Your task to perform on an android device: create a new album in the google photos Image 0: 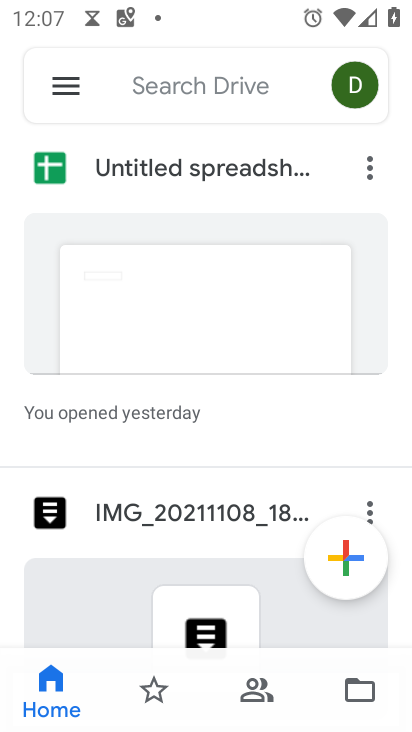
Step 0: press home button
Your task to perform on an android device: create a new album in the google photos Image 1: 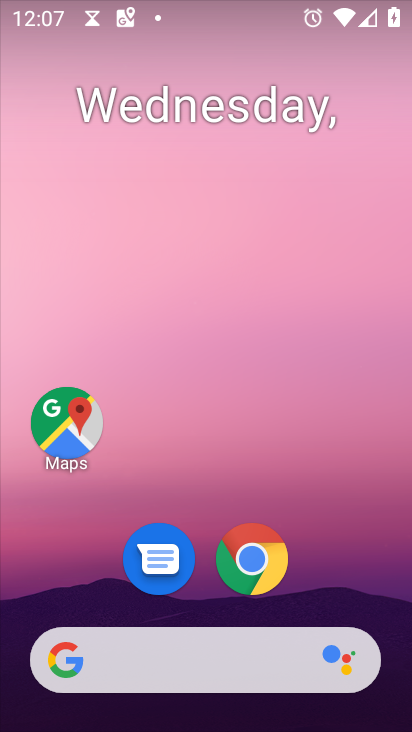
Step 1: drag from (363, 567) to (393, 26)
Your task to perform on an android device: create a new album in the google photos Image 2: 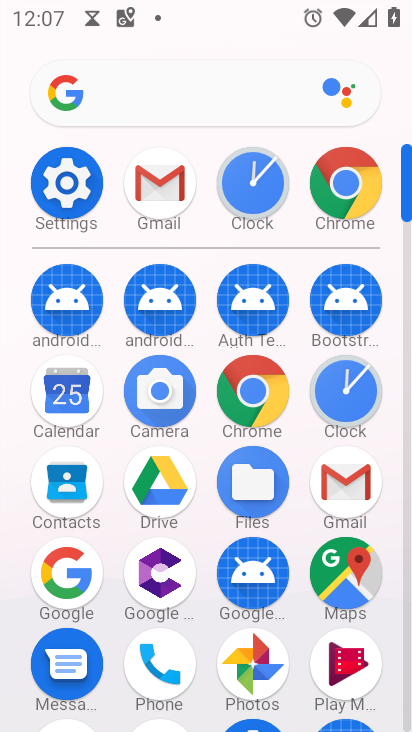
Step 2: drag from (389, 509) to (409, 420)
Your task to perform on an android device: create a new album in the google photos Image 3: 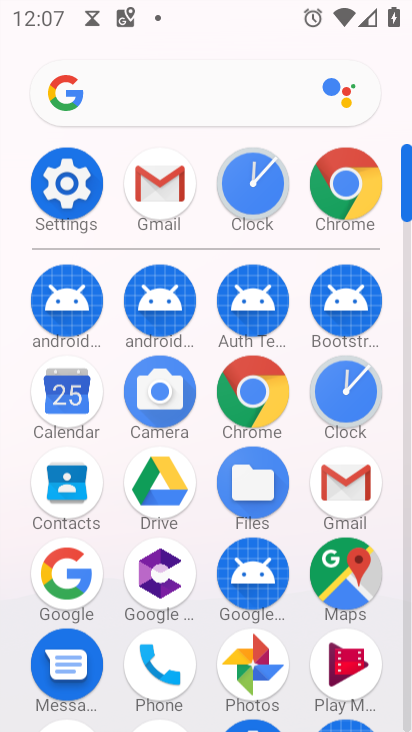
Step 3: drag from (393, 528) to (408, 337)
Your task to perform on an android device: create a new album in the google photos Image 4: 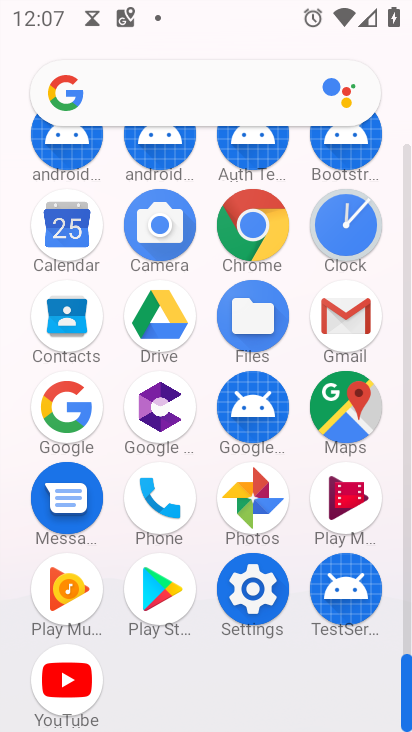
Step 4: click (263, 507)
Your task to perform on an android device: create a new album in the google photos Image 5: 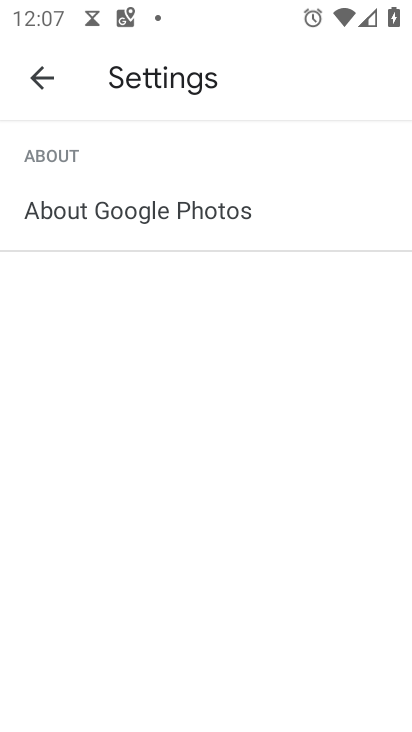
Step 5: click (52, 89)
Your task to perform on an android device: create a new album in the google photos Image 6: 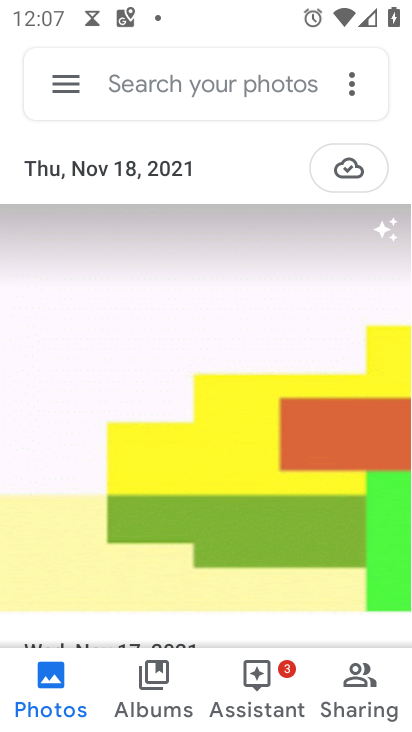
Step 6: click (164, 694)
Your task to perform on an android device: create a new album in the google photos Image 7: 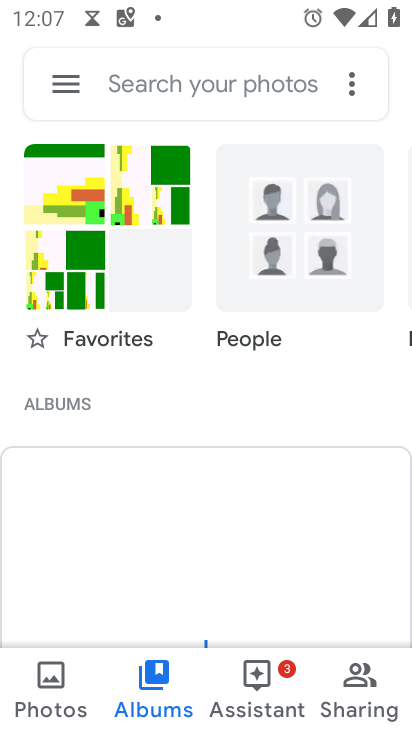
Step 7: drag from (230, 574) to (307, 135)
Your task to perform on an android device: create a new album in the google photos Image 8: 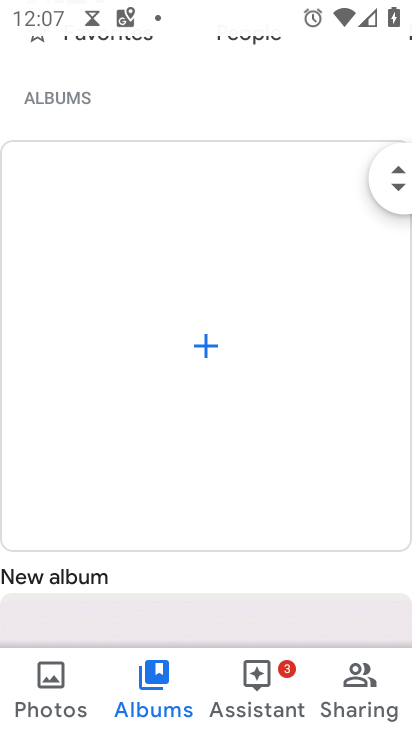
Step 8: click (204, 353)
Your task to perform on an android device: create a new album in the google photos Image 9: 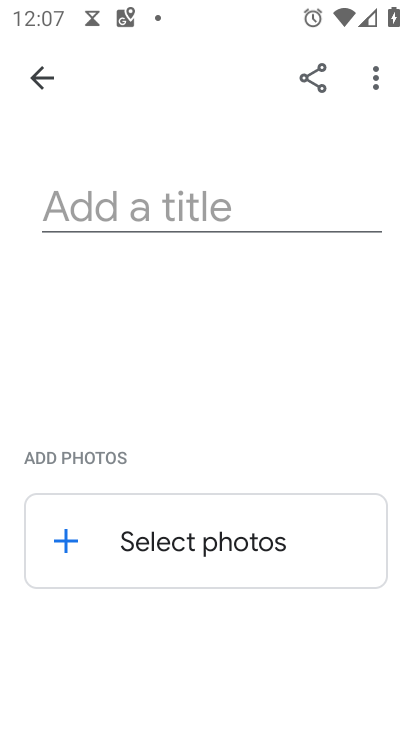
Step 9: click (207, 210)
Your task to perform on an android device: create a new album in the google photos Image 10: 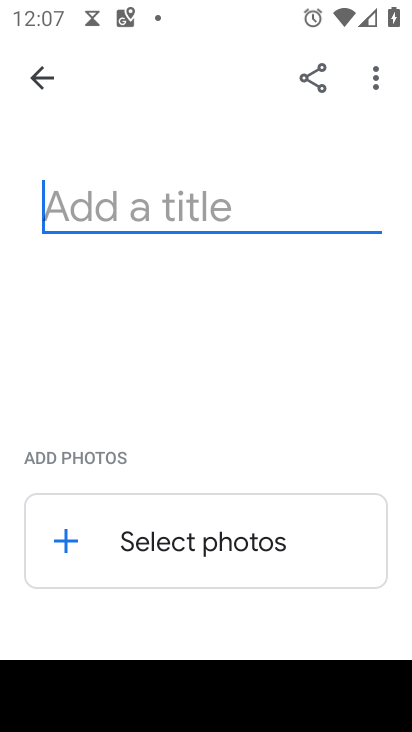
Step 10: type "retetev"
Your task to perform on an android device: create a new album in the google photos Image 11: 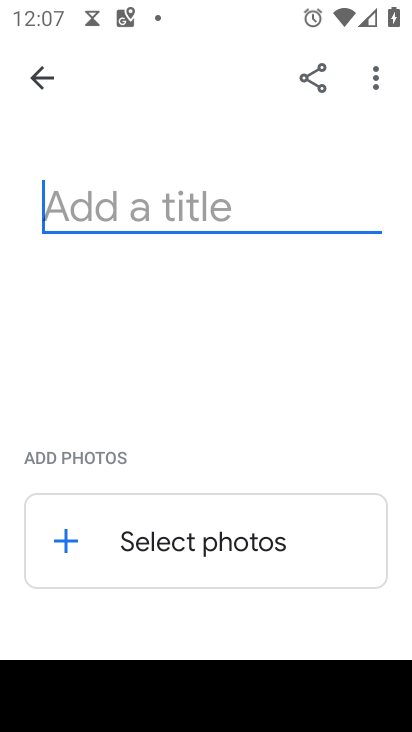
Step 11: click (225, 557)
Your task to perform on an android device: create a new album in the google photos Image 12: 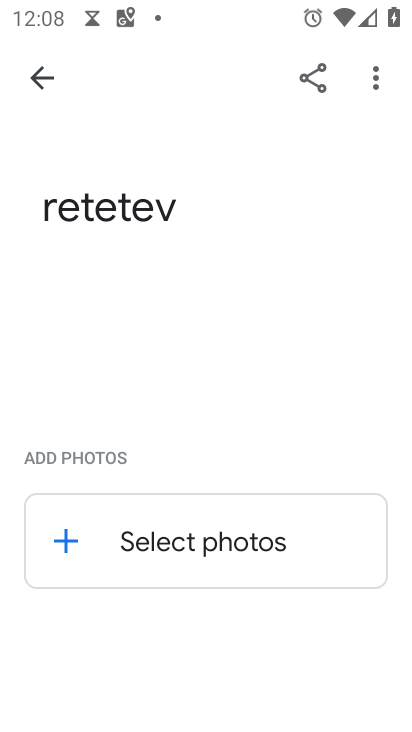
Step 12: click (224, 556)
Your task to perform on an android device: create a new album in the google photos Image 13: 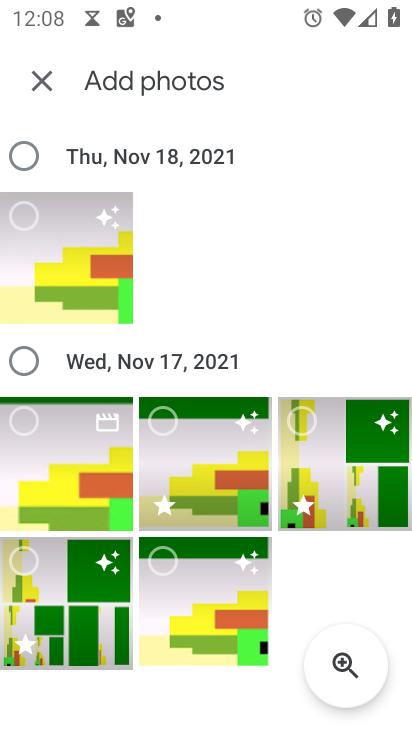
Step 13: click (18, 430)
Your task to perform on an android device: create a new album in the google photos Image 14: 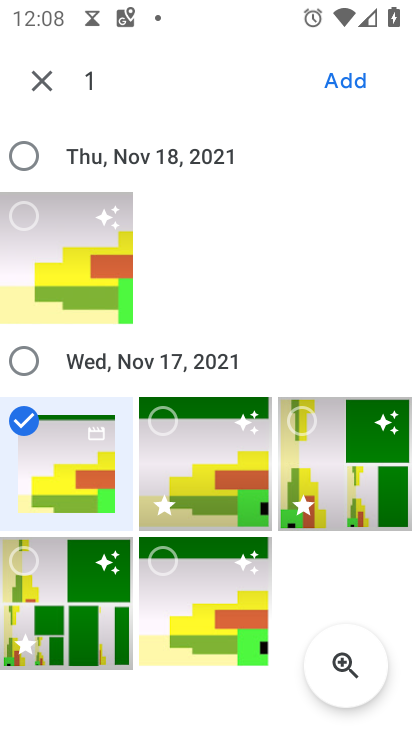
Step 14: click (171, 419)
Your task to perform on an android device: create a new album in the google photos Image 15: 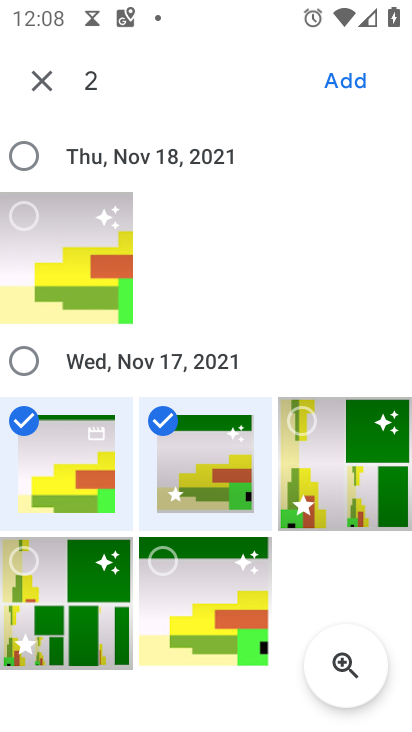
Step 15: click (349, 91)
Your task to perform on an android device: create a new album in the google photos Image 16: 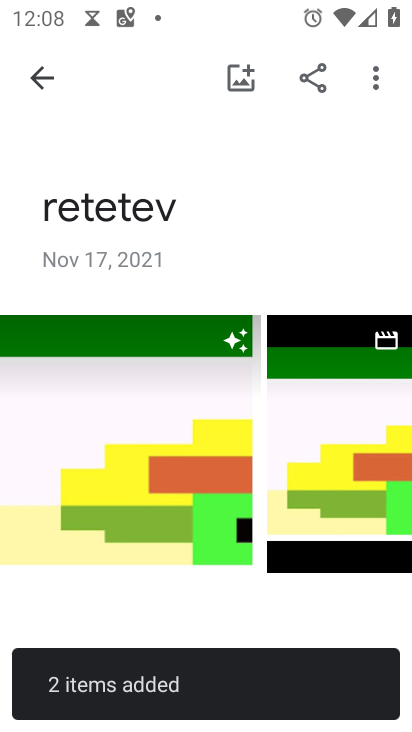
Step 16: task complete